Your task to perform on an android device: turn on the 24-hour format for clock Image 0: 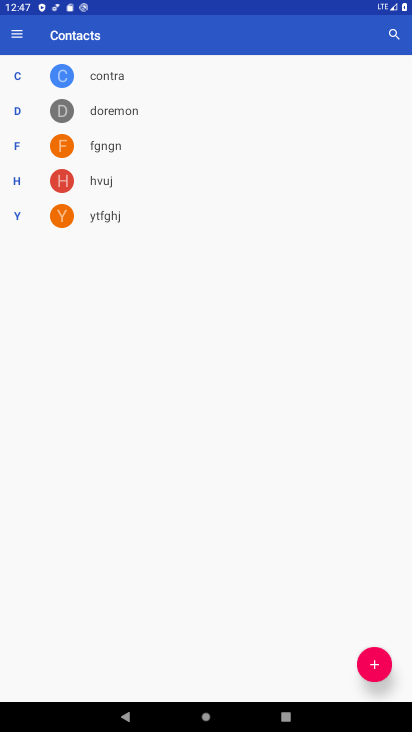
Step 0: press home button
Your task to perform on an android device: turn on the 24-hour format for clock Image 1: 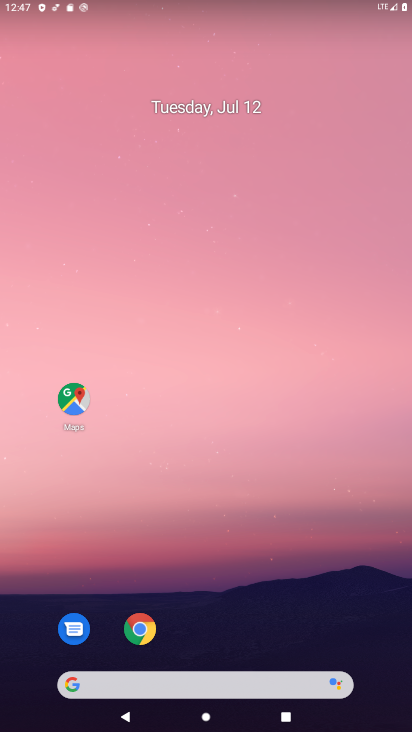
Step 1: drag from (27, 716) to (213, 47)
Your task to perform on an android device: turn on the 24-hour format for clock Image 2: 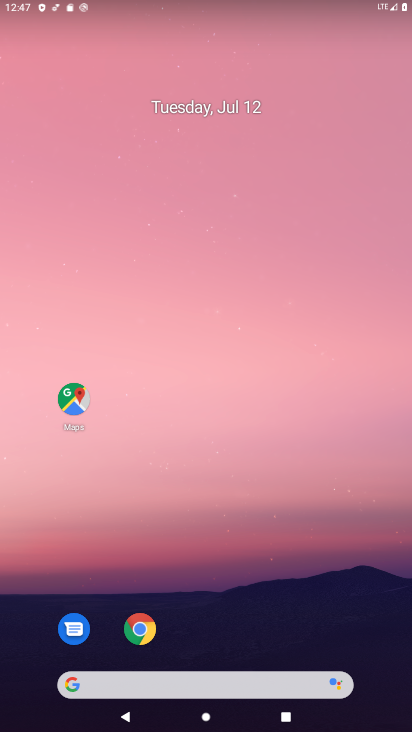
Step 2: drag from (33, 700) to (314, 36)
Your task to perform on an android device: turn on the 24-hour format for clock Image 3: 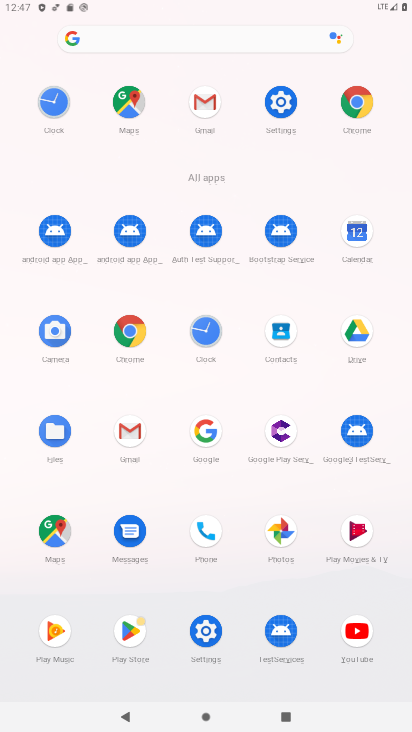
Step 3: click (209, 330)
Your task to perform on an android device: turn on the 24-hour format for clock Image 4: 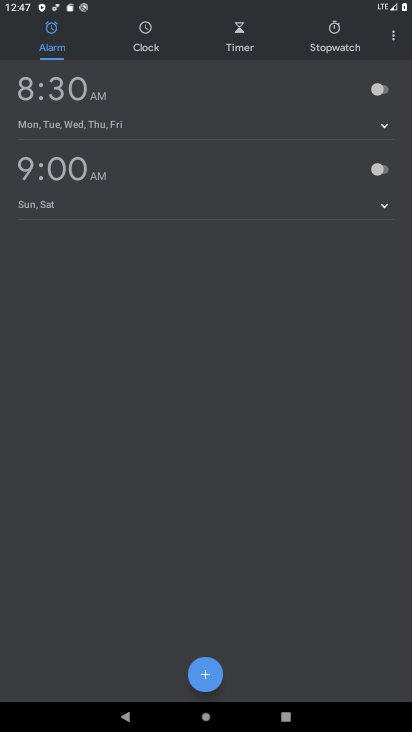
Step 4: click (139, 27)
Your task to perform on an android device: turn on the 24-hour format for clock Image 5: 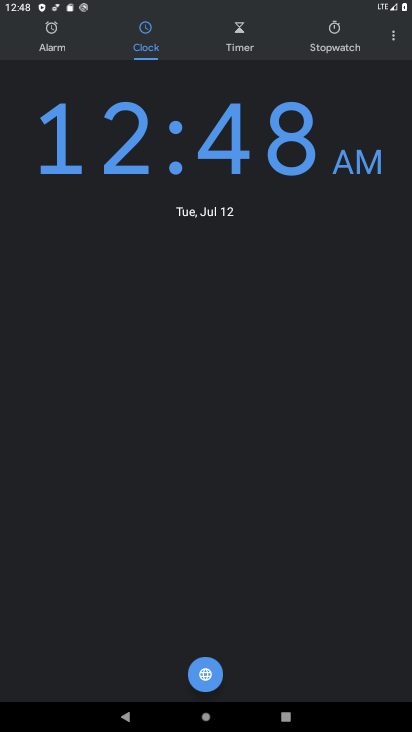
Step 5: click (389, 40)
Your task to perform on an android device: turn on the 24-hour format for clock Image 6: 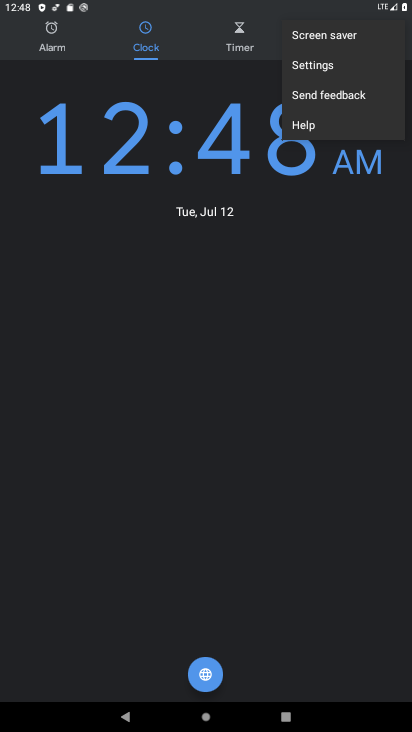
Step 6: click (327, 66)
Your task to perform on an android device: turn on the 24-hour format for clock Image 7: 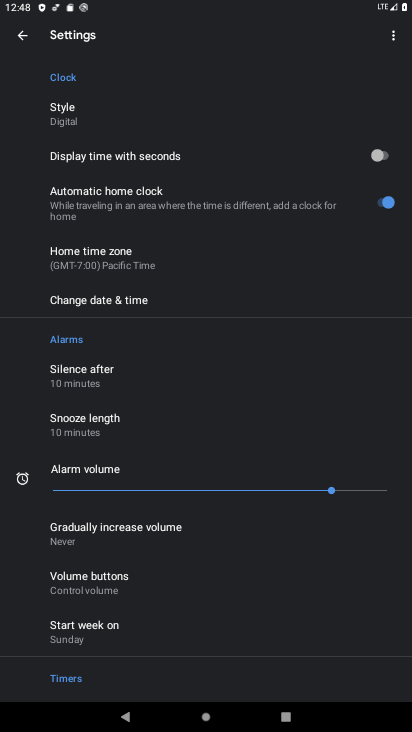
Step 7: drag from (186, 634) to (250, 194)
Your task to perform on an android device: turn on the 24-hour format for clock Image 8: 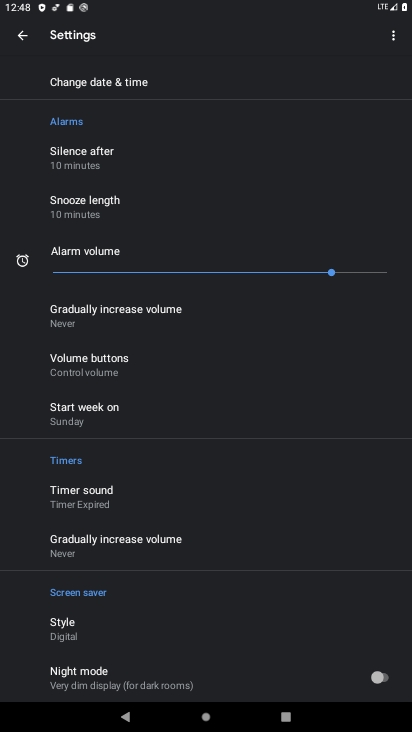
Step 8: drag from (162, 507) to (186, 133)
Your task to perform on an android device: turn on the 24-hour format for clock Image 9: 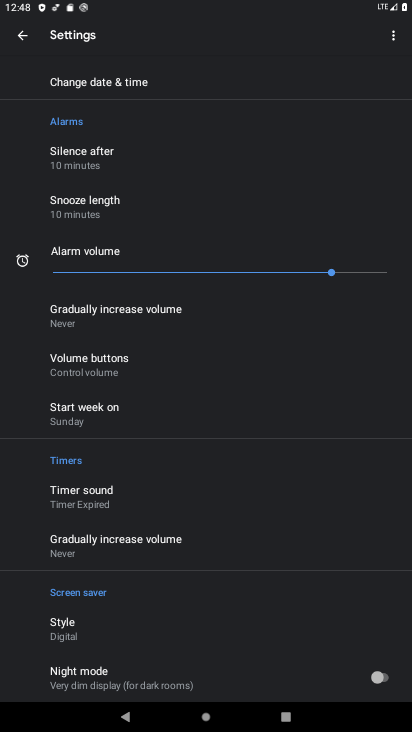
Step 9: click (301, 296)
Your task to perform on an android device: turn on the 24-hour format for clock Image 10: 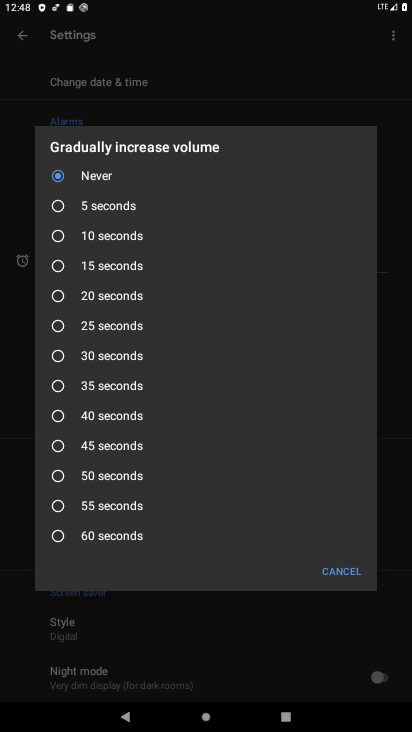
Step 10: click (336, 577)
Your task to perform on an android device: turn on the 24-hour format for clock Image 11: 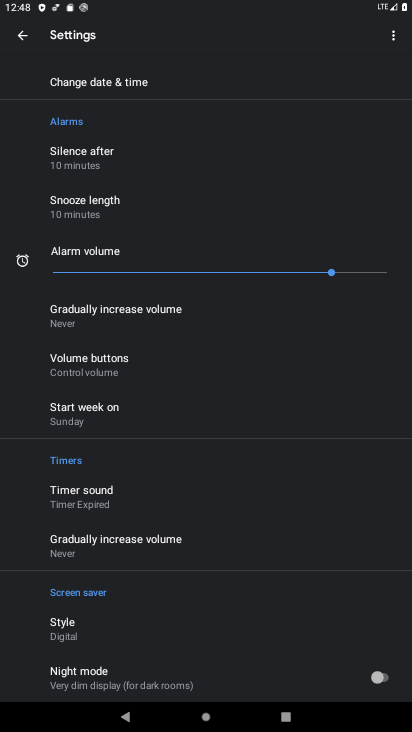
Step 11: drag from (13, 664) to (65, 217)
Your task to perform on an android device: turn on the 24-hour format for clock Image 12: 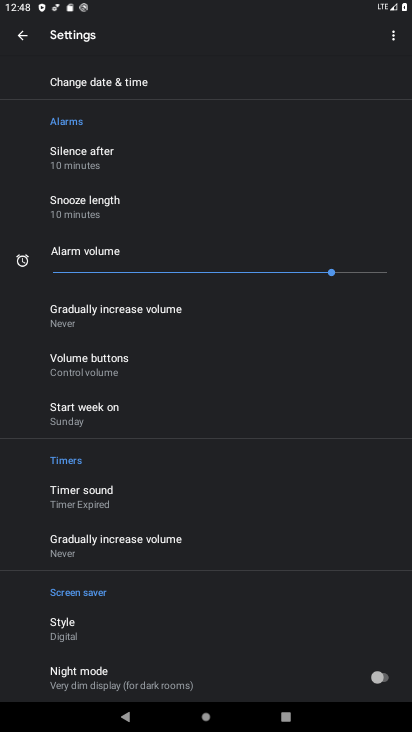
Step 12: drag from (199, 512) to (225, 293)
Your task to perform on an android device: turn on the 24-hour format for clock Image 13: 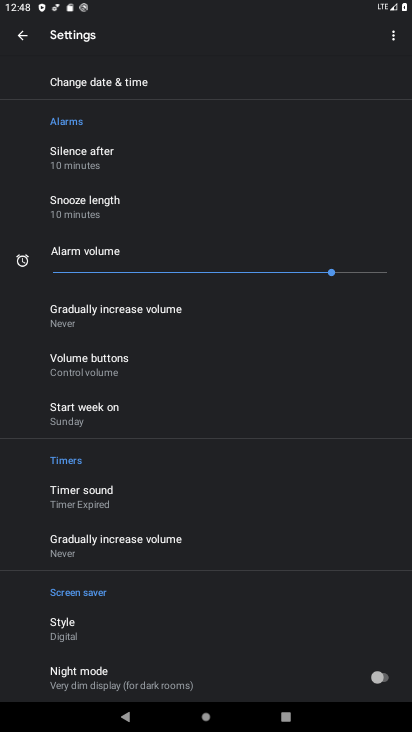
Step 13: drag from (234, 124) to (238, 405)
Your task to perform on an android device: turn on the 24-hour format for clock Image 14: 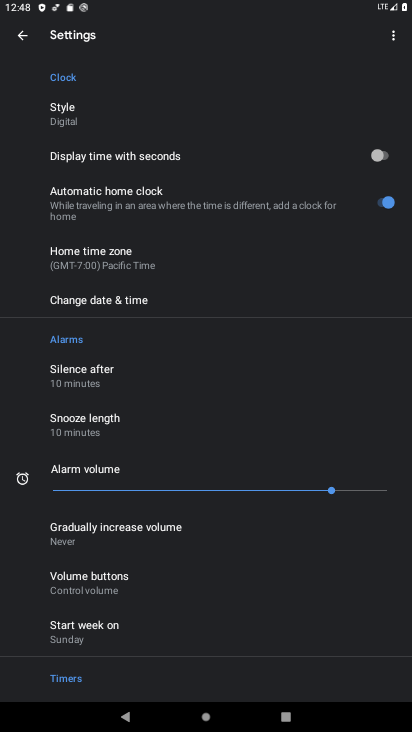
Step 14: click (98, 299)
Your task to perform on an android device: turn on the 24-hour format for clock Image 15: 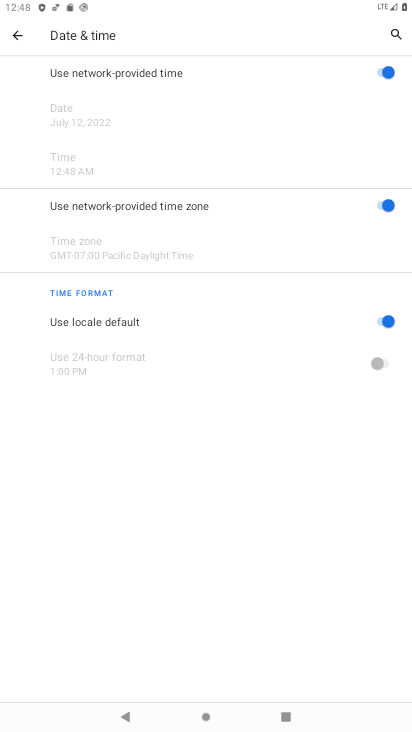
Step 15: click (375, 362)
Your task to perform on an android device: turn on the 24-hour format for clock Image 16: 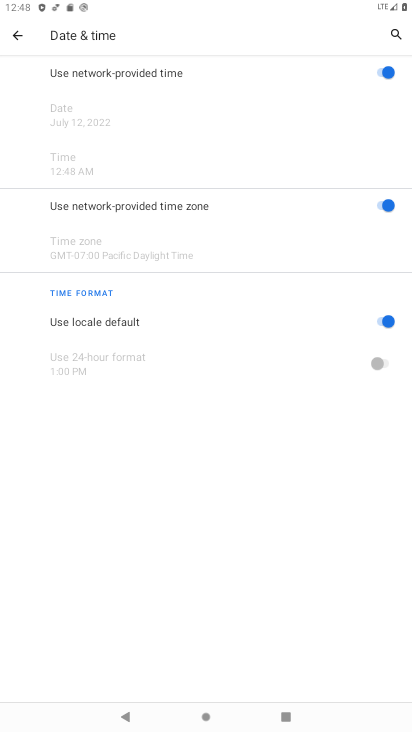
Step 16: click (386, 319)
Your task to perform on an android device: turn on the 24-hour format for clock Image 17: 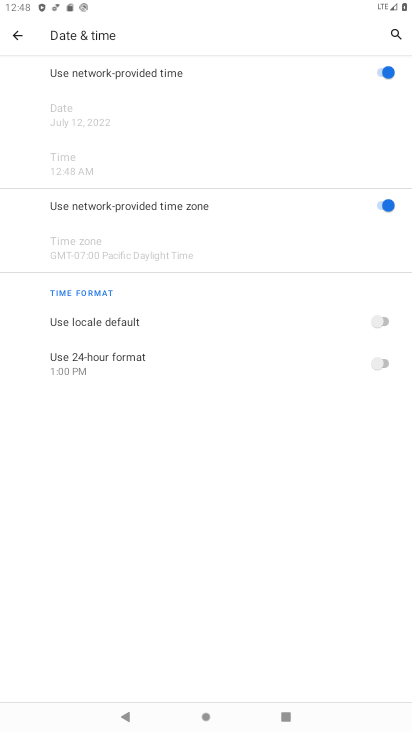
Step 17: click (385, 365)
Your task to perform on an android device: turn on the 24-hour format for clock Image 18: 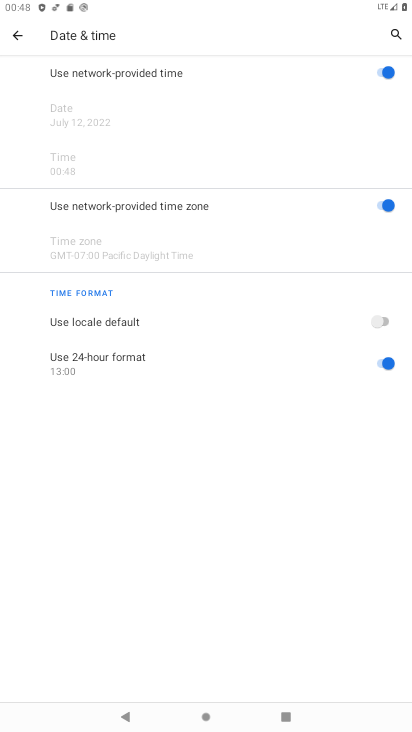
Step 18: task complete